Your task to perform on an android device: snooze an email in the gmail app Image 0: 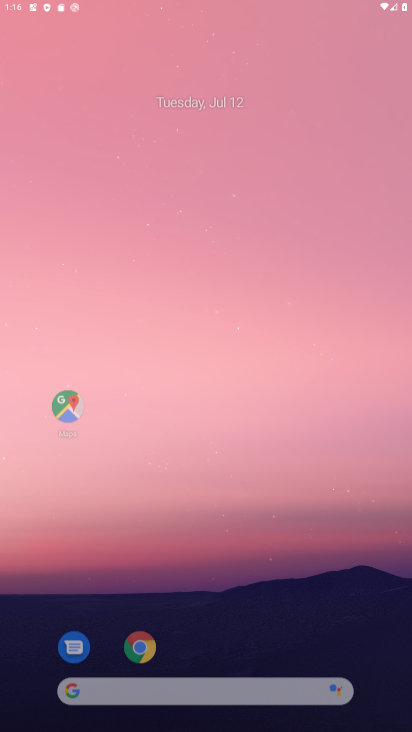
Step 0: drag from (162, 691) to (311, 147)
Your task to perform on an android device: snooze an email in the gmail app Image 1: 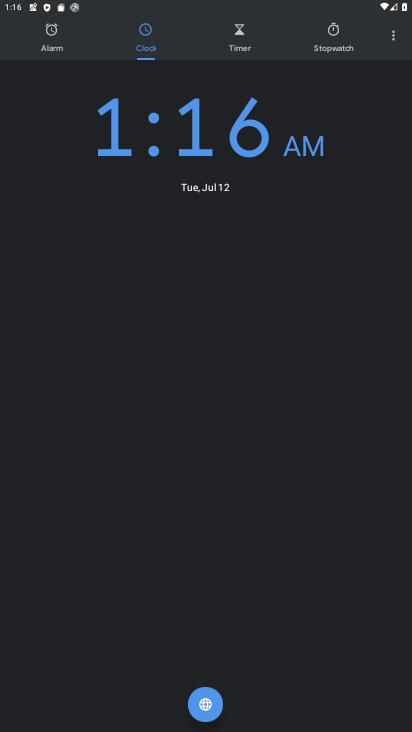
Step 1: press home button
Your task to perform on an android device: snooze an email in the gmail app Image 2: 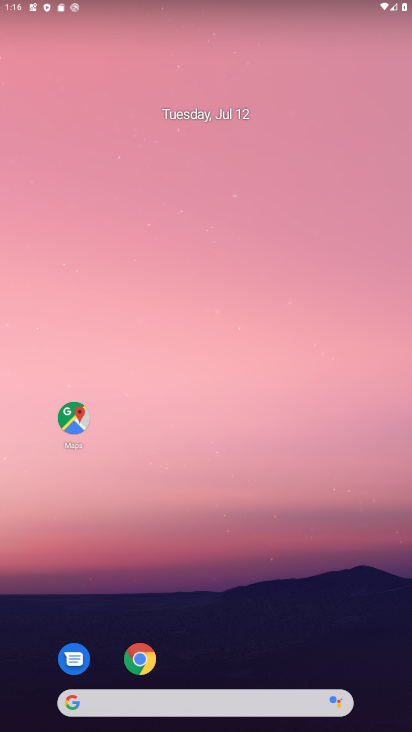
Step 2: drag from (312, 418) to (362, 185)
Your task to perform on an android device: snooze an email in the gmail app Image 3: 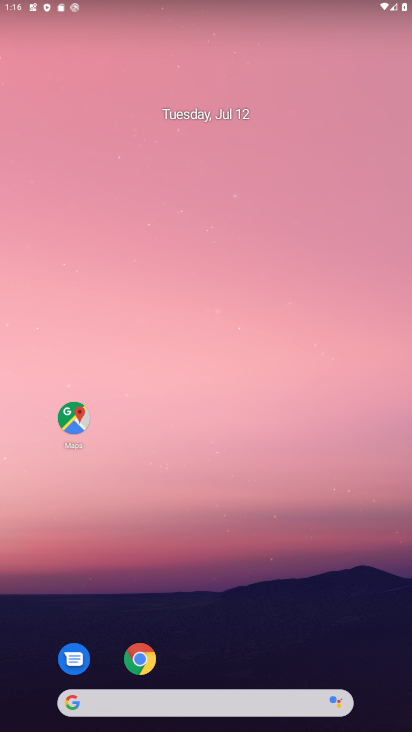
Step 3: drag from (228, 683) to (340, 127)
Your task to perform on an android device: snooze an email in the gmail app Image 4: 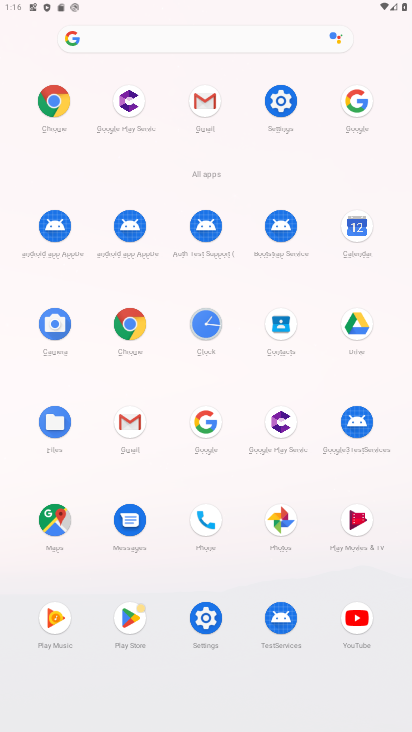
Step 4: click (135, 432)
Your task to perform on an android device: snooze an email in the gmail app Image 5: 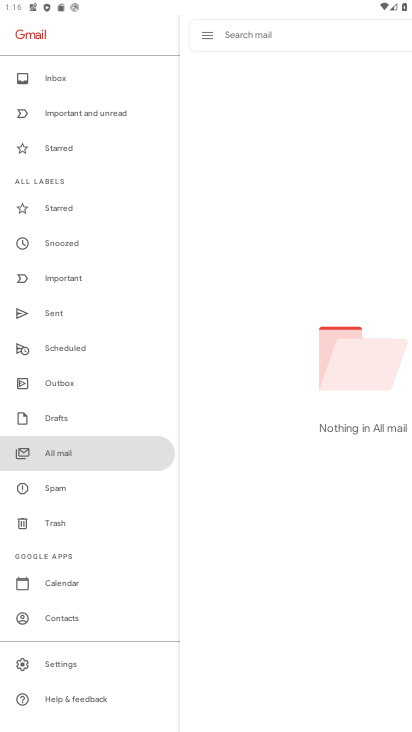
Step 5: task complete